Your task to perform on an android device: Open wifi settings Image 0: 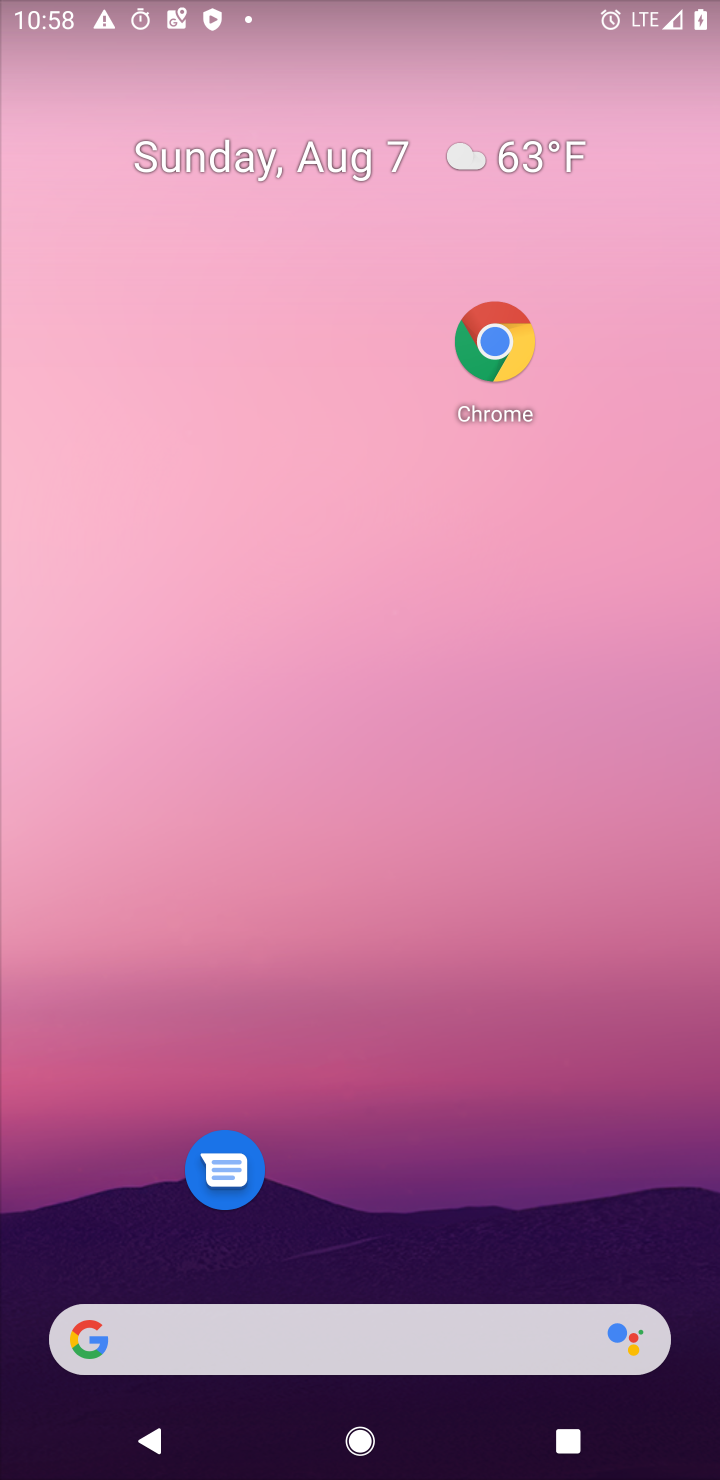
Step 0: drag from (377, 1332) to (393, 159)
Your task to perform on an android device: Open wifi settings Image 1: 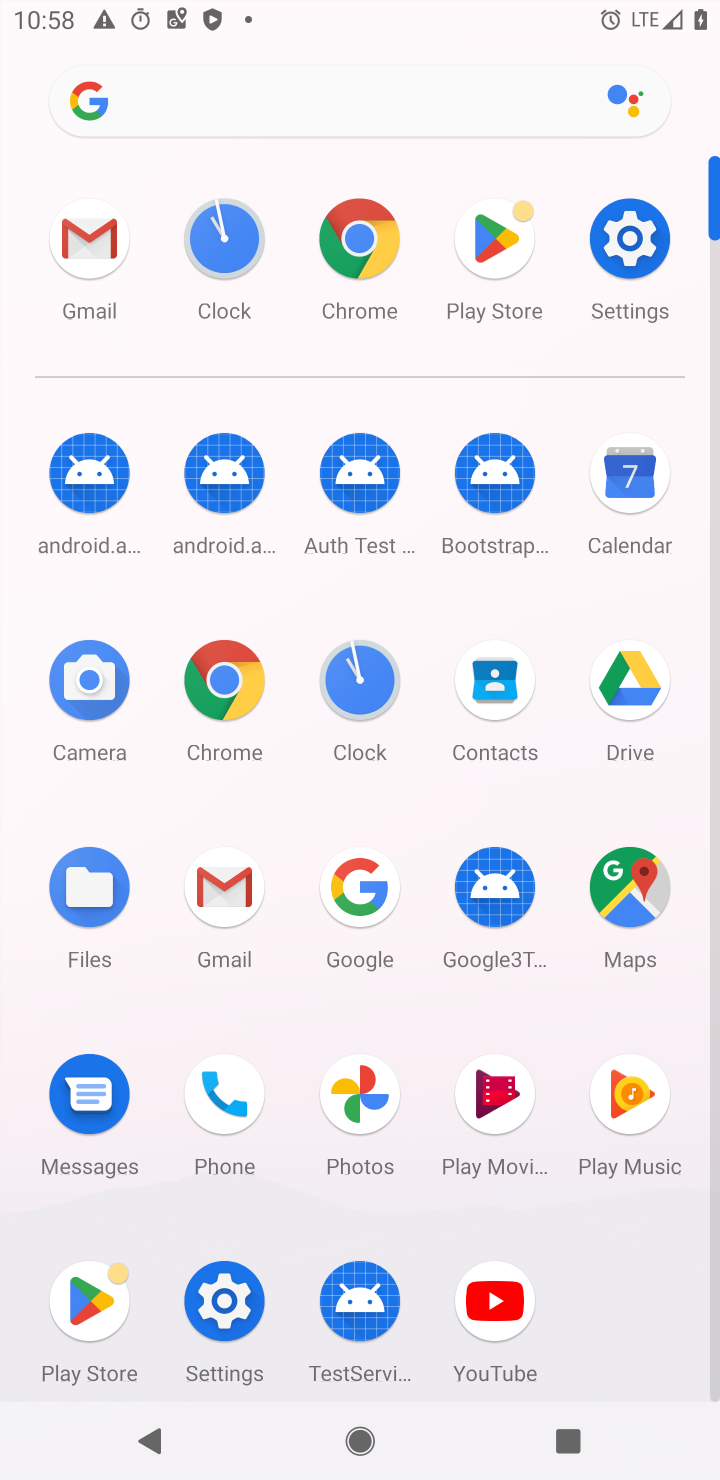
Step 1: click (622, 237)
Your task to perform on an android device: Open wifi settings Image 2: 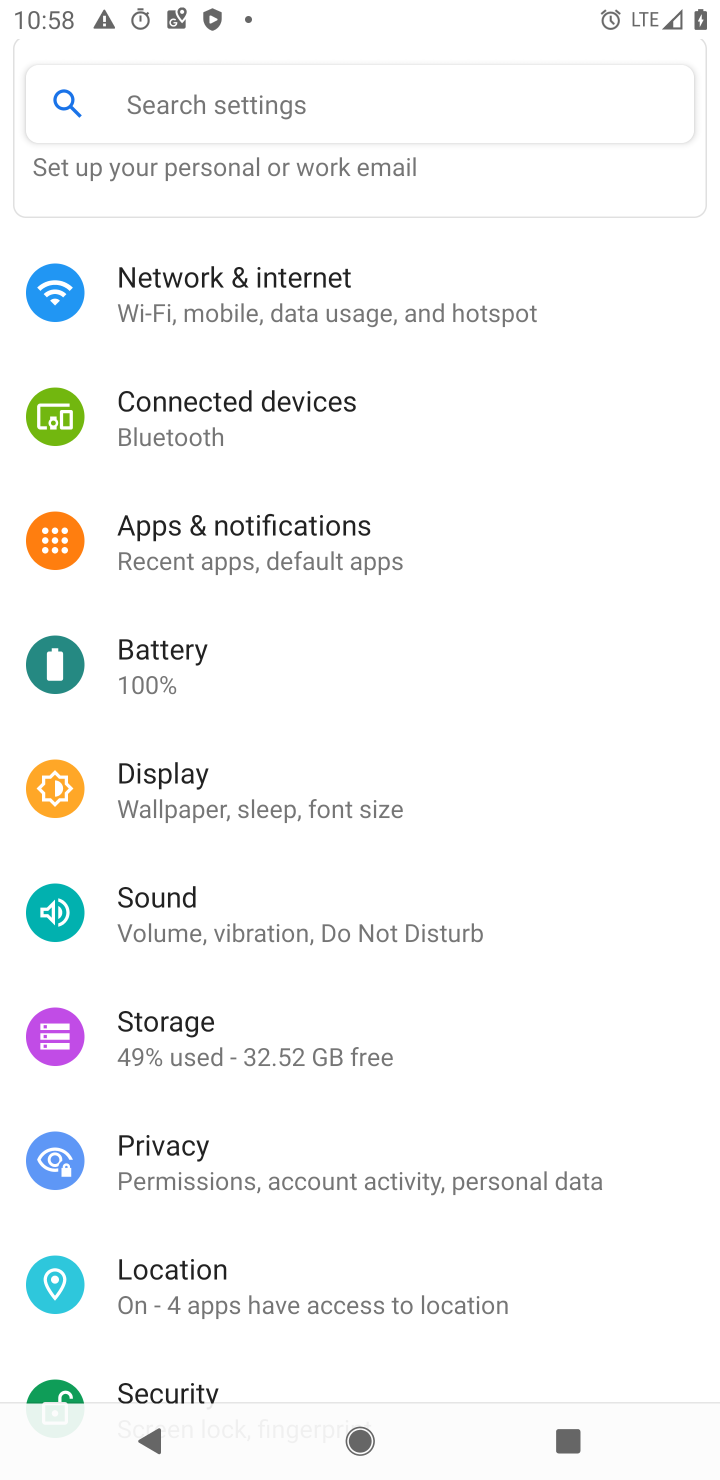
Step 2: click (291, 286)
Your task to perform on an android device: Open wifi settings Image 3: 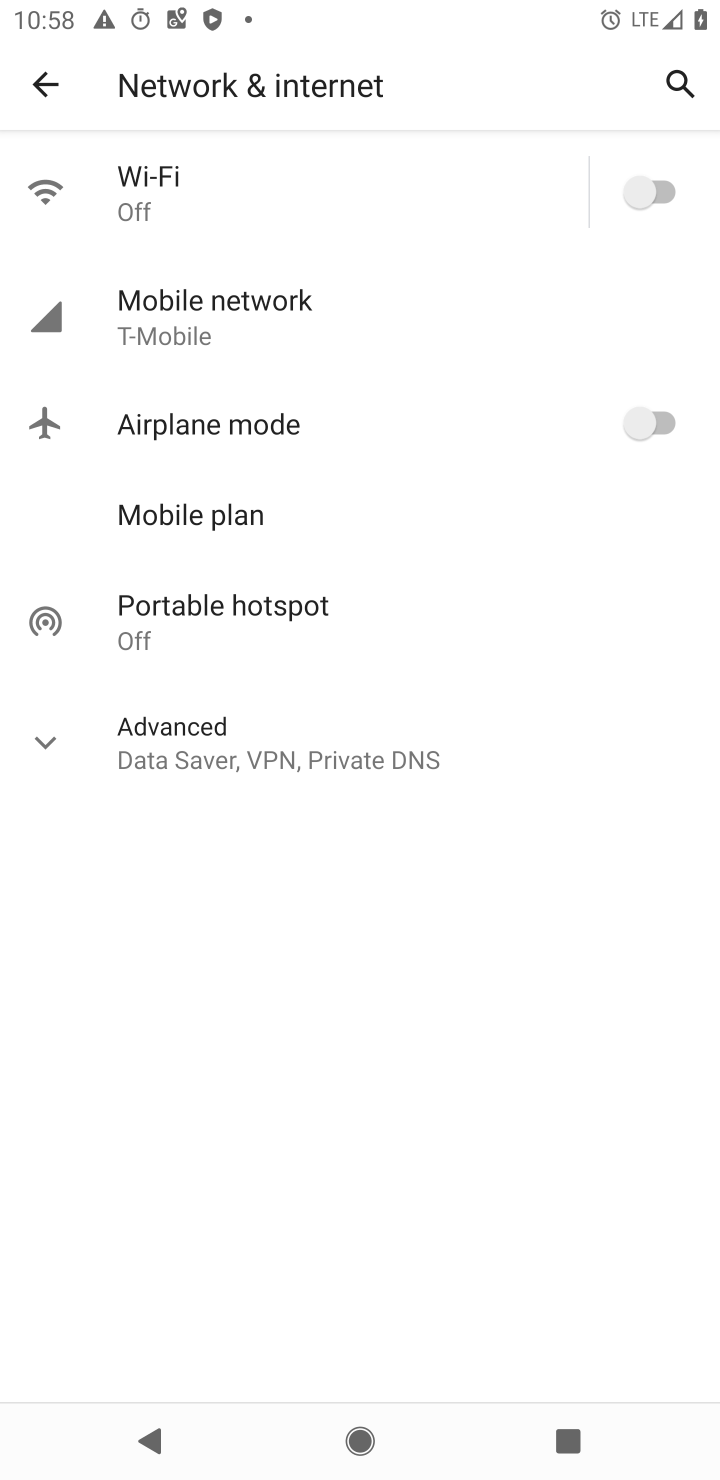
Step 3: click (211, 192)
Your task to perform on an android device: Open wifi settings Image 4: 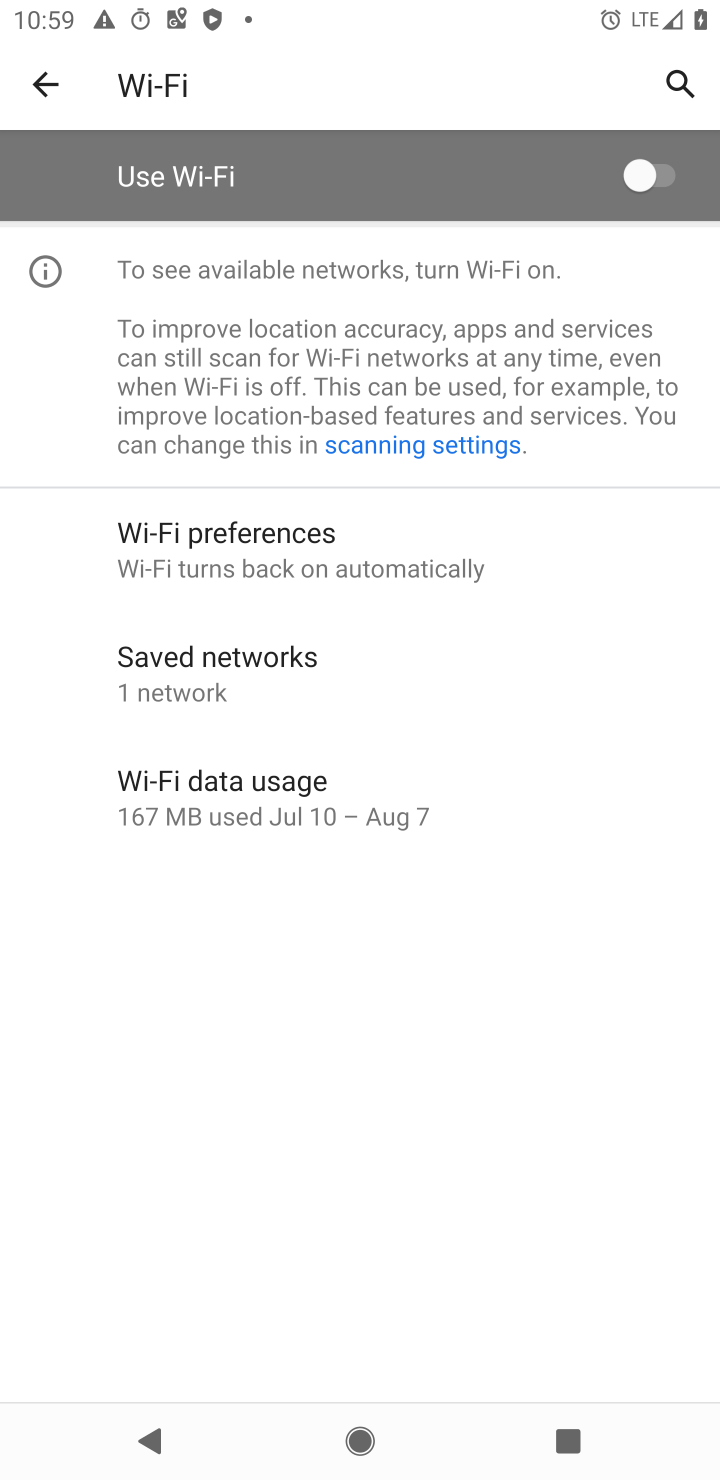
Step 4: task complete